Your task to perform on an android device: Go to wifi settings Image 0: 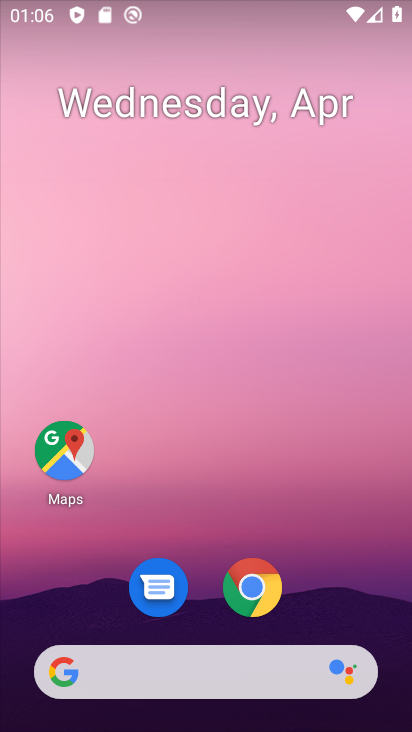
Step 0: drag from (397, 617) to (375, 34)
Your task to perform on an android device: Go to wifi settings Image 1: 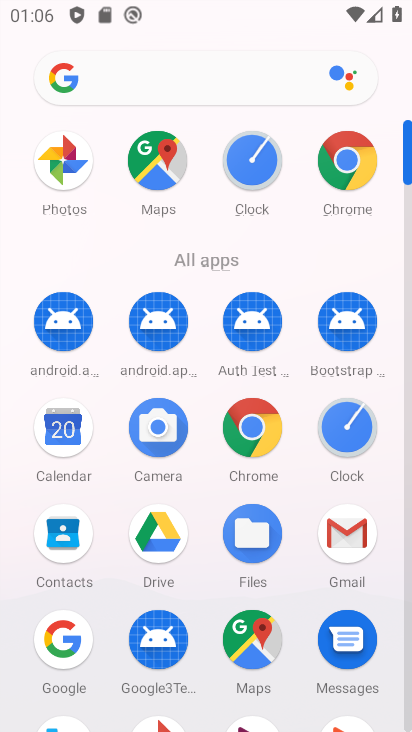
Step 1: click (407, 563)
Your task to perform on an android device: Go to wifi settings Image 2: 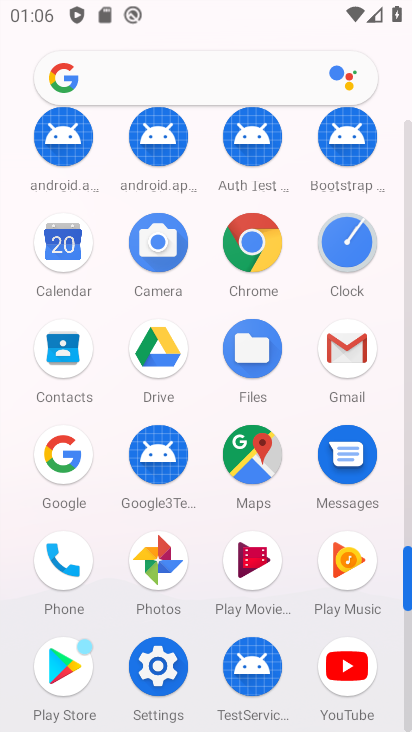
Step 2: click (150, 674)
Your task to perform on an android device: Go to wifi settings Image 3: 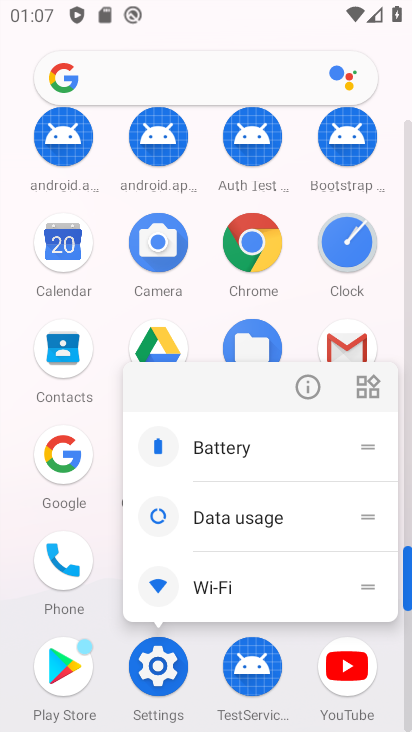
Step 3: click (213, 593)
Your task to perform on an android device: Go to wifi settings Image 4: 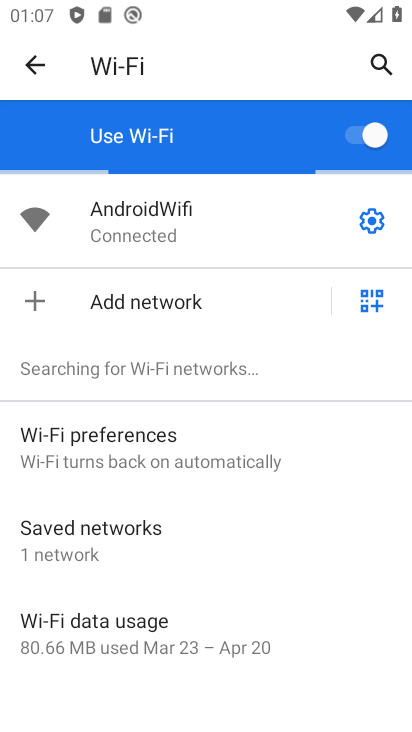
Step 4: task complete